Your task to perform on an android device: change text size in settings app Image 0: 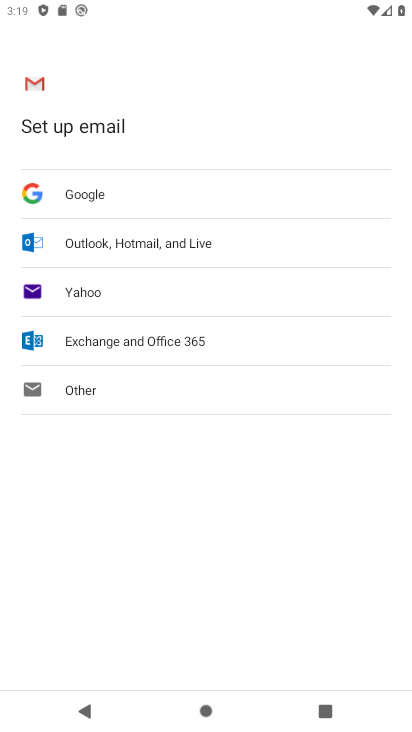
Step 0: press home button
Your task to perform on an android device: change text size in settings app Image 1: 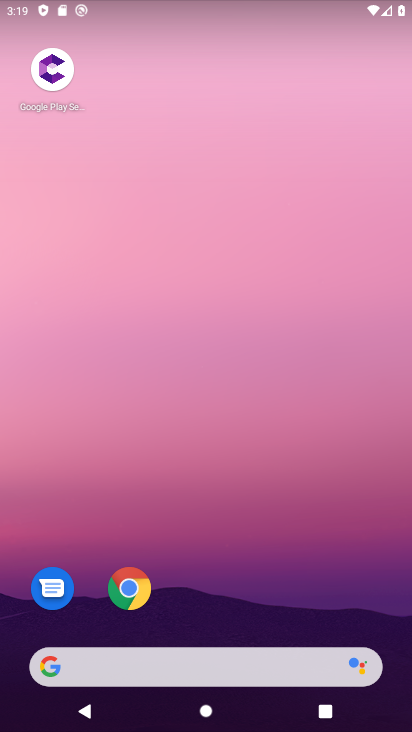
Step 1: drag from (231, 559) to (302, 43)
Your task to perform on an android device: change text size in settings app Image 2: 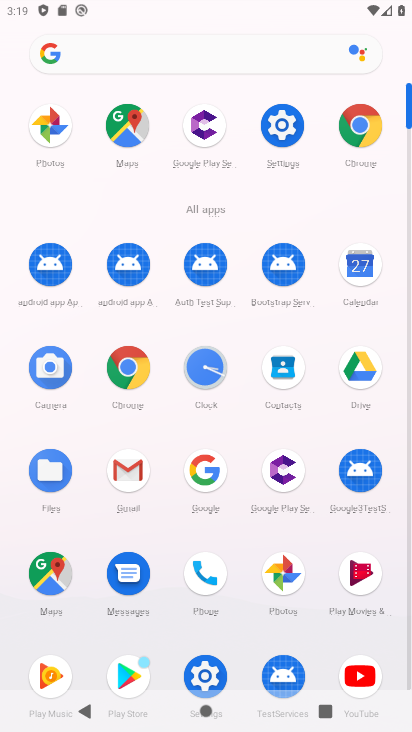
Step 2: click (195, 671)
Your task to perform on an android device: change text size in settings app Image 3: 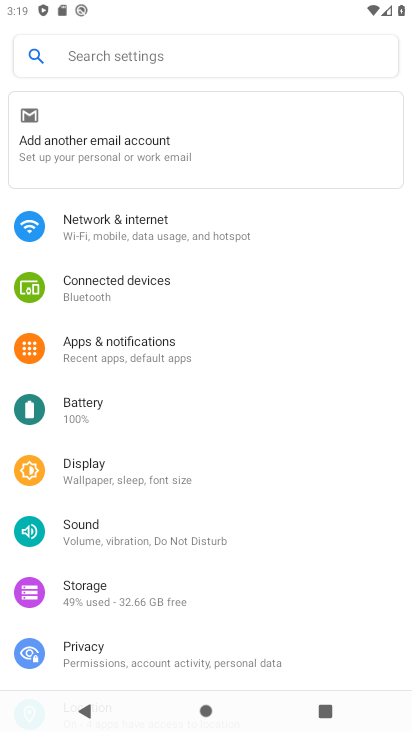
Step 3: click (68, 478)
Your task to perform on an android device: change text size in settings app Image 4: 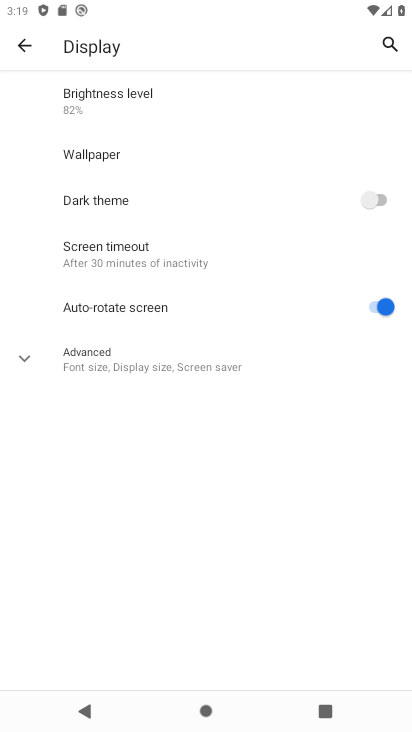
Step 4: click (64, 361)
Your task to perform on an android device: change text size in settings app Image 5: 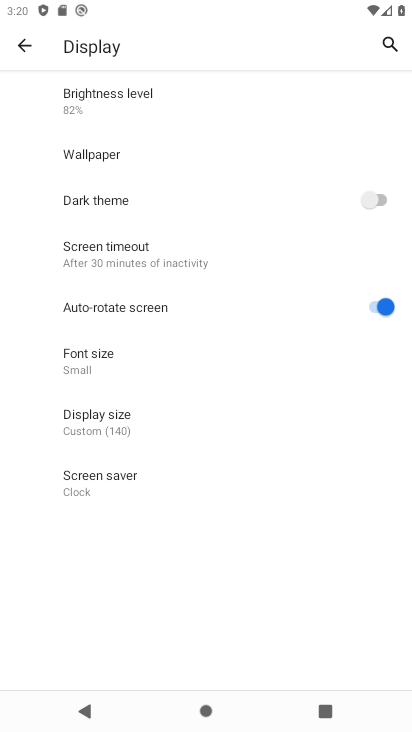
Step 5: click (87, 370)
Your task to perform on an android device: change text size in settings app Image 6: 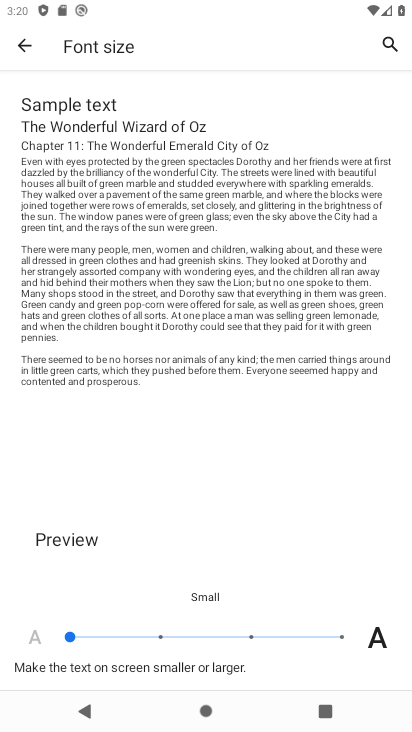
Step 6: click (157, 638)
Your task to perform on an android device: change text size in settings app Image 7: 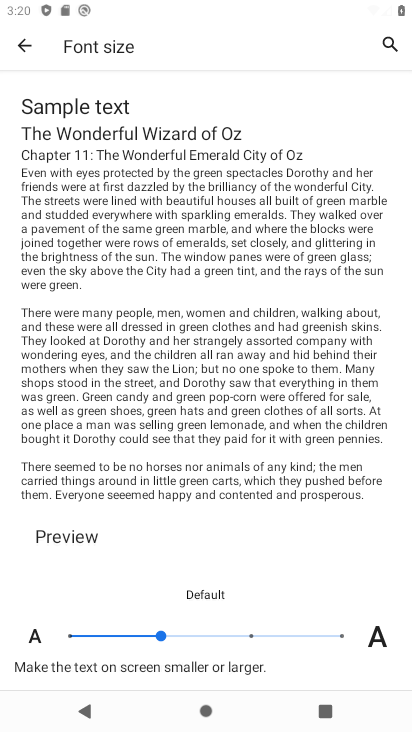
Step 7: click (249, 636)
Your task to perform on an android device: change text size in settings app Image 8: 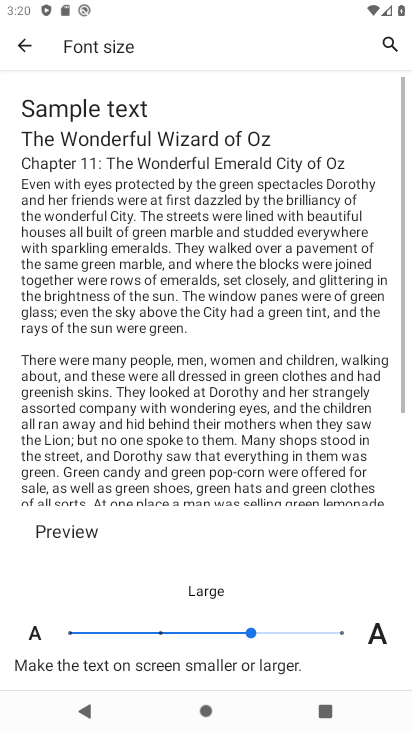
Step 8: task complete